Your task to perform on an android device: change alarm snooze length Image 0: 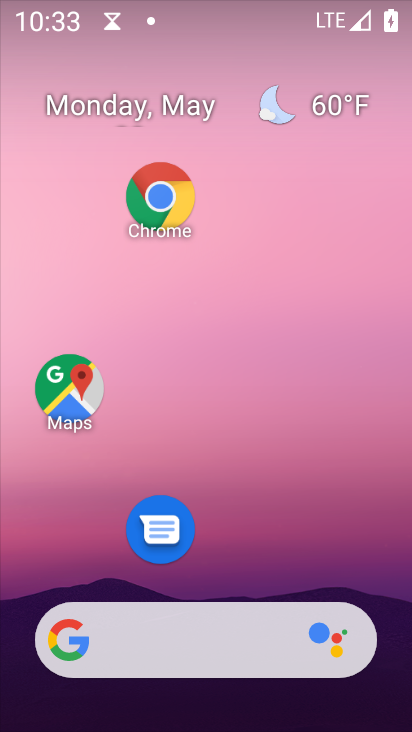
Step 0: drag from (232, 577) to (151, 11)
Your task to perform on an android device: change alarm snooze length Image 1: 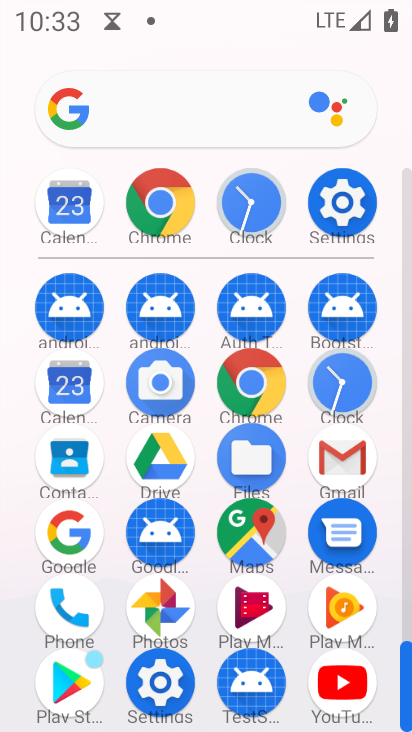
Step 1: click (340, 401)
Your task to perform on an android device: change alarm snooze length Image 2: 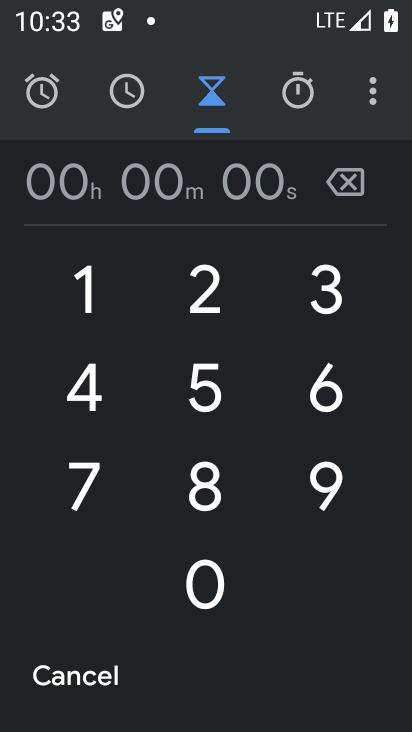
Step 2: click (366, 103)
Your task to perform on an android device: change alarm snooze length Image 3: 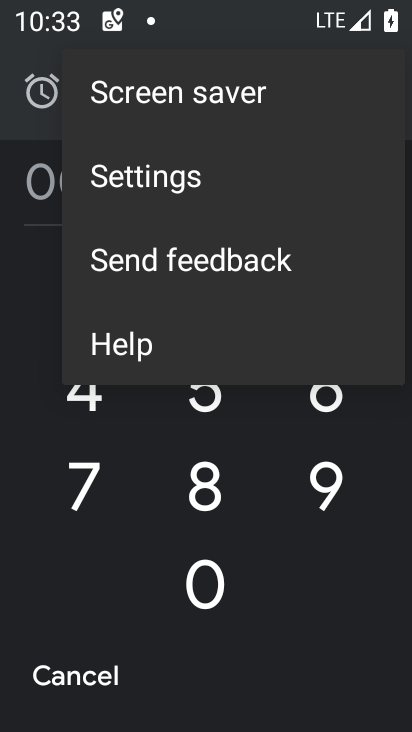
Step 3: click (120, 181)
Your task to perform on an android device: change alarm snooze length Image 4: 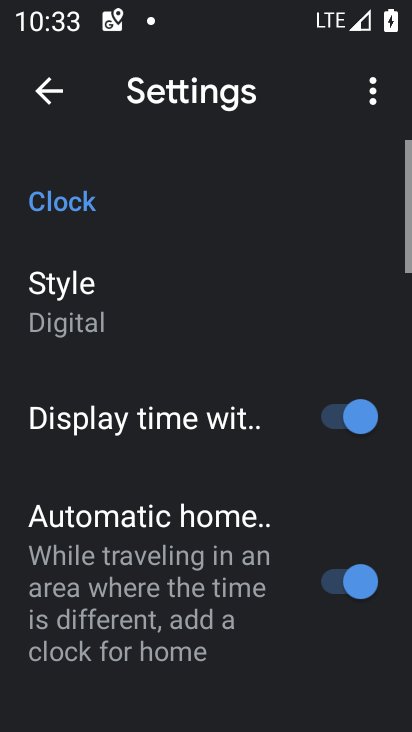
Step 4: drag from (193, 624) to (100, 203)
Your task to perform on an android device: change alarm snooze length Image 5: 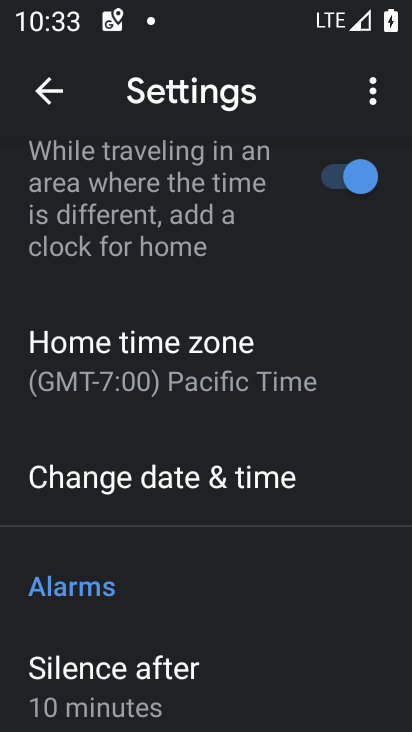
Step 5: drag from (175, 658) to (159, 387)
Your task to perform on an android device: change alarm snooze length Image 6: 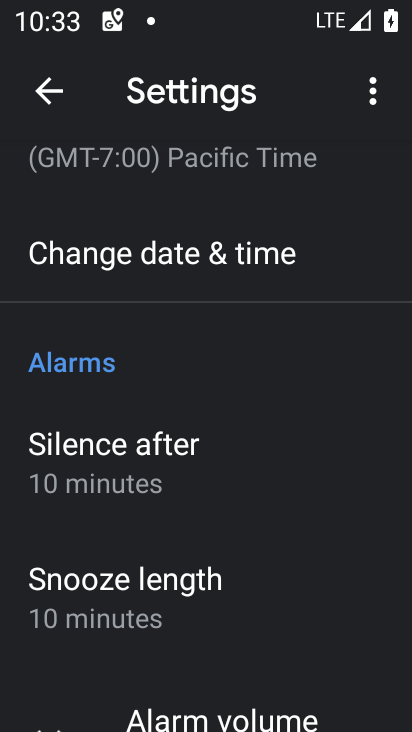
Step 6: click (113, 595)
Your task to perform on an android device: change alarm snooze length Image 7: 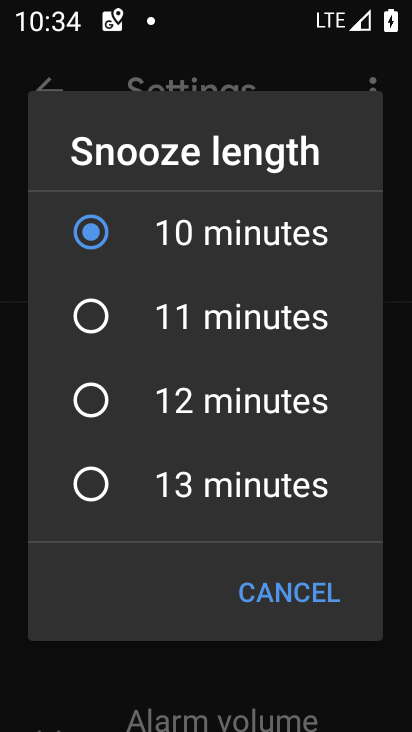
Step 7: click (87, 323)
Your task to perform on an android device: change alarm snooze length Image 8: 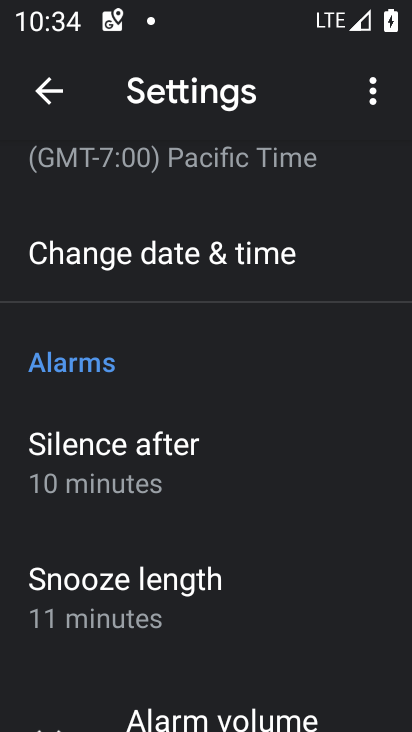
Step 8: task complete